Your task to perform on an android device: What's the weather? Image 0: 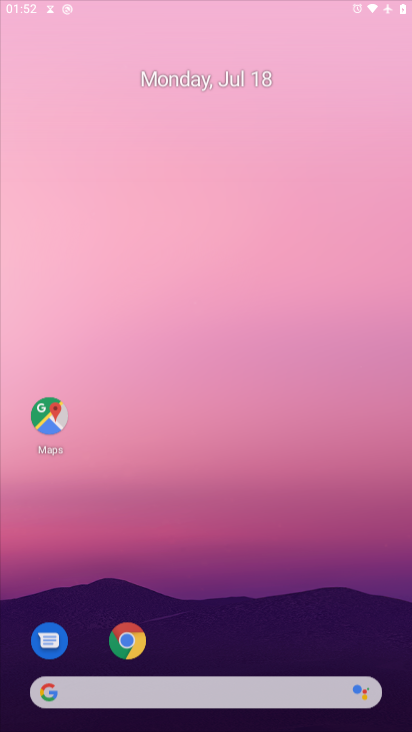
Step 0: press home button
Your task to perform on an android device: What's the weather? Image 1: 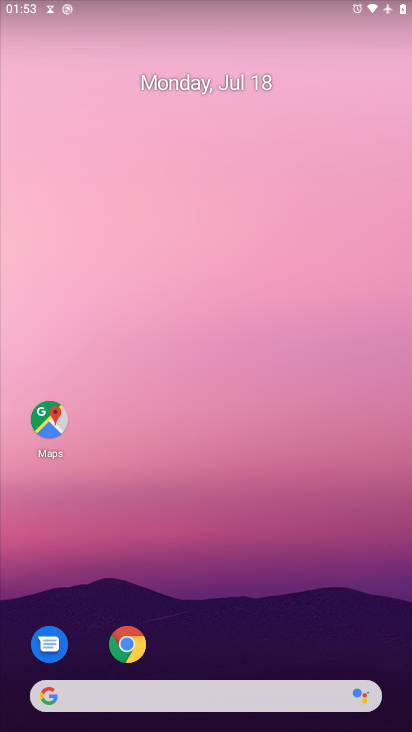
Step 1: click (55, 696)
Your task to perform on an android device: What's the weather? Image 2: 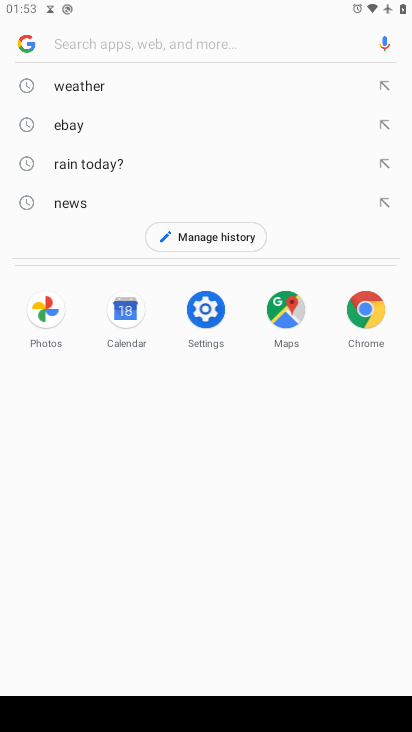
Step 2: click (74, 83)
Your task to perform on an android device: What's the weather? Image 3: 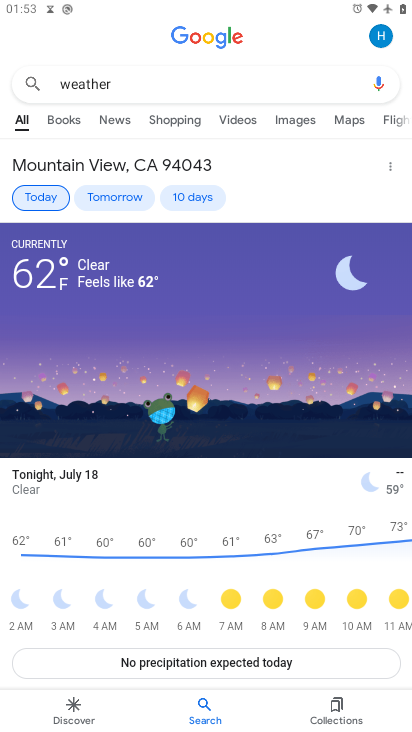
Step 3: task complete